Your task to perform on an android device: stop showing notifications on the lock screen Image 0: 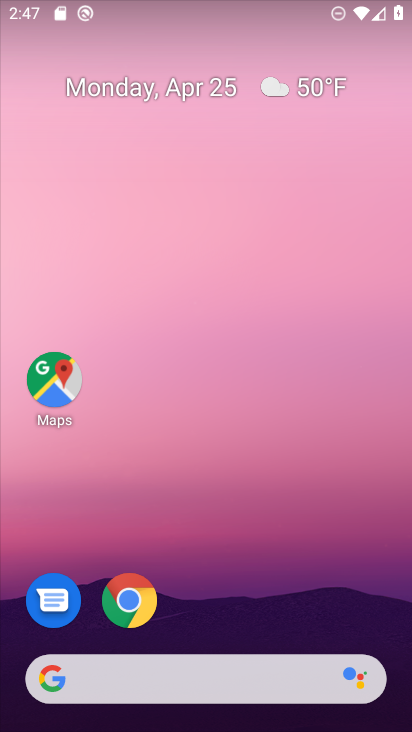
Step 0: drag from (201, 578) to (201, 143)
Your task to perform on an android device: stop showing notifications on the lock screen Image 1: 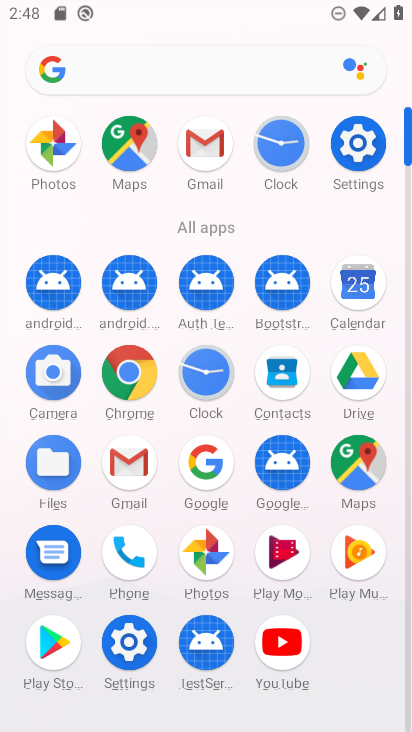
Step 1: click (149, 634)
Your task to perform on an android device: stop showing notifications on the lock screen Image 2: 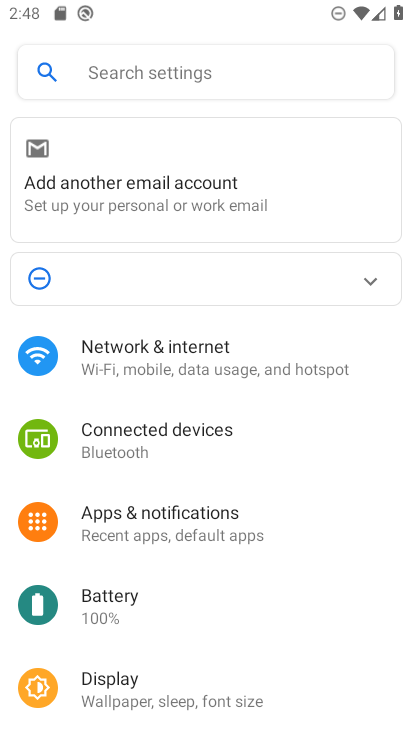
Step 2: click (158, 532)
Your task to perform on an android device: stop showing notifications on the lock screen Image 3: 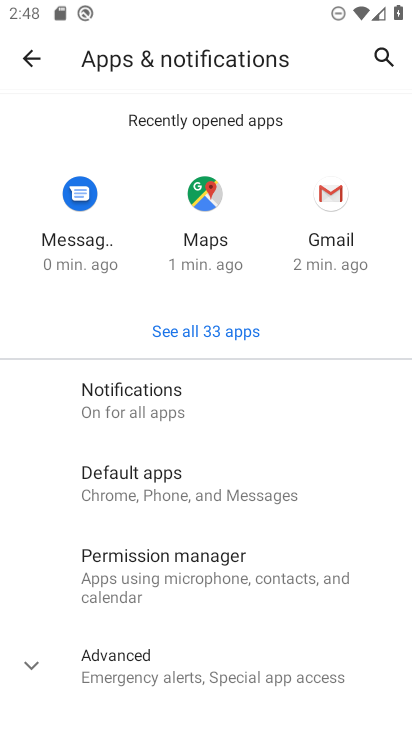
Step 3: click (159, 654)
Your task to perform on an android device: stop showing notifications on the lock screen Image 4: 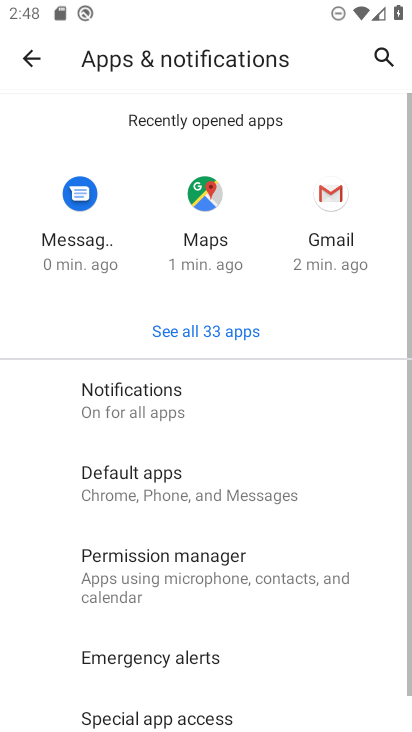
Step 4: click (137, 372)
Your task to perform on an android device: stop showing notifications on the lock screen Image 5: 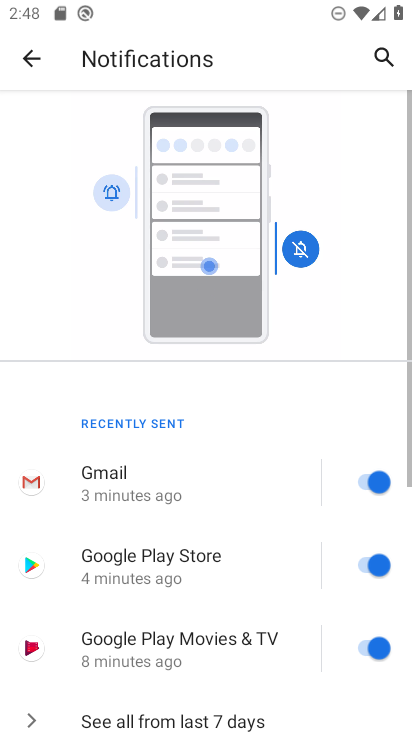
Step 5: drag from (168, 650) to (171, 117)
Your task to perform on an android device: stop showing notifications on the lock screen Image 6: 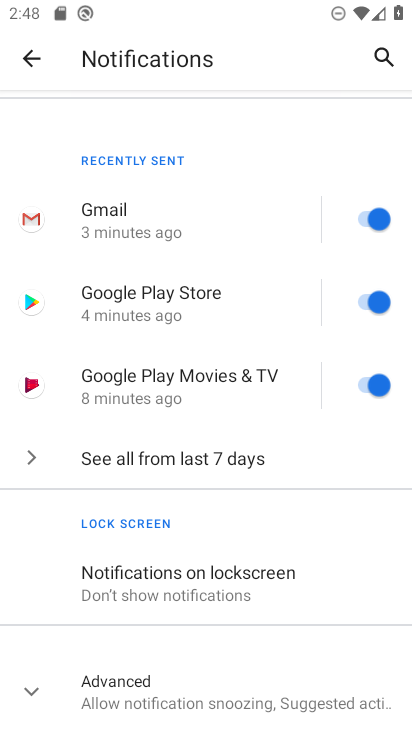
Step 6: click (162, 587)
Your task to perform on an android device: stop showing notifications on the lock screen Image 7: 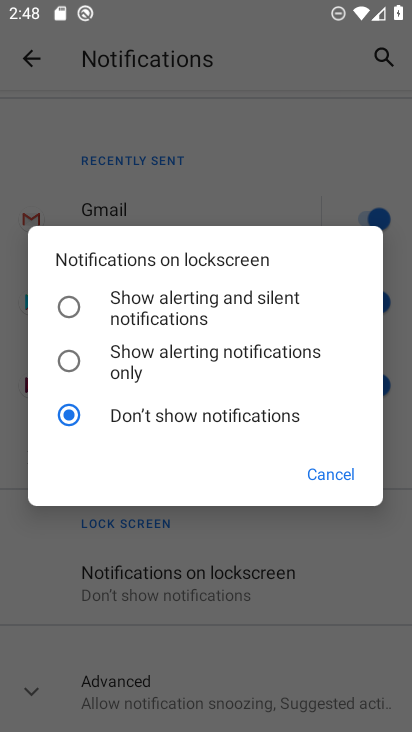
Step 7: click (92, 409)
Your task to perform on an android device: stop showing notifications on the lock screen Image 8: 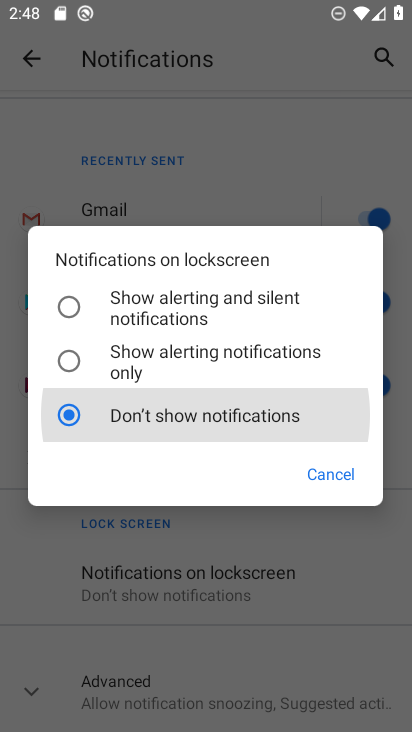
Step 8: task complete